Your task to perform on an android device: Open location settings Image 0: 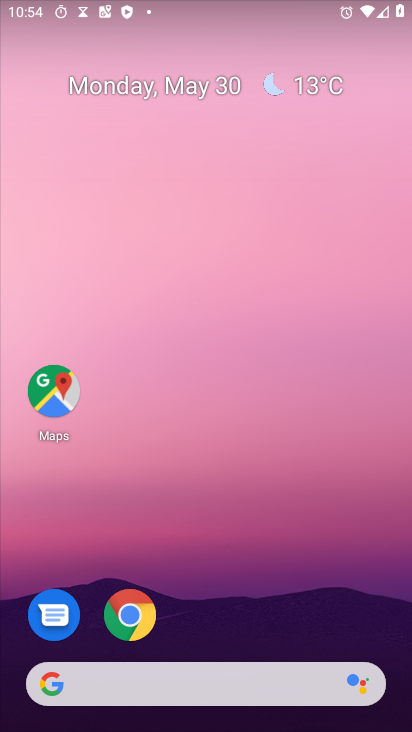
Step 0: drag from (269, 383) to (284, 1)
Your task to perform on an android device: Open location settings Image 1: 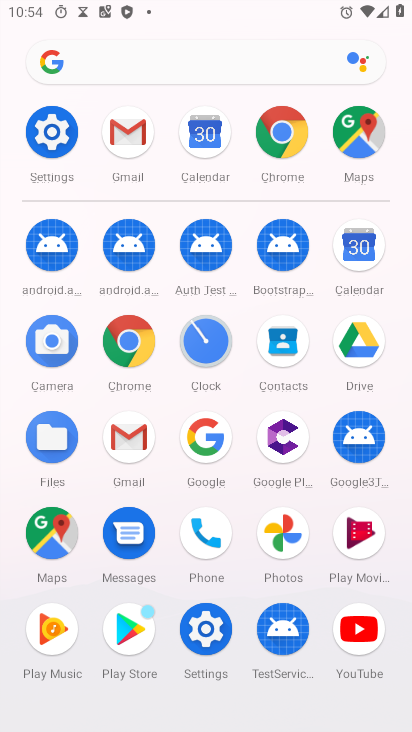
Step 1: click (52, 138)
Your task to perform on an android device: Open location settings Image 2: 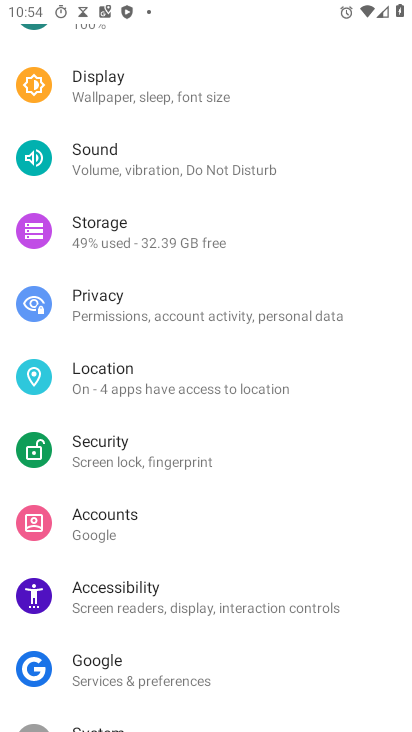
Step 2: click (145, 383)
Your task to perform on an android device: Open location settings Image 3: 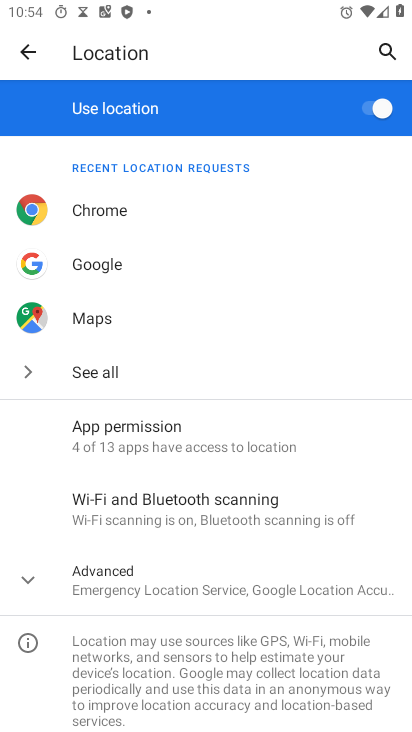
Step 3: task complete